Your task to perform on an android device: change the clock display to analog Image 0: 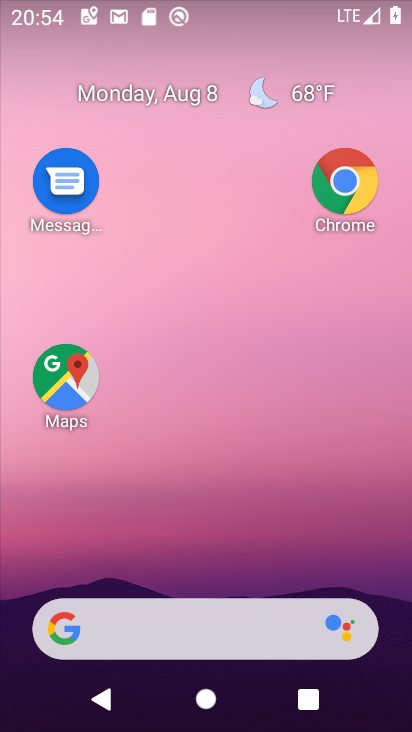
Step 0: drag from (209, 578) to (167, 17)
Your task to perform on an android device: change the clock display to analog Image 1: 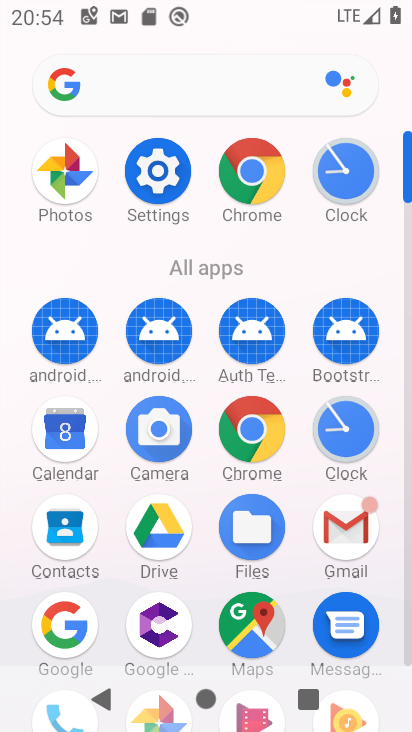
Step 1: click (364, 413)
Your task to perform on an android device: change the clock display to analog Image 2: 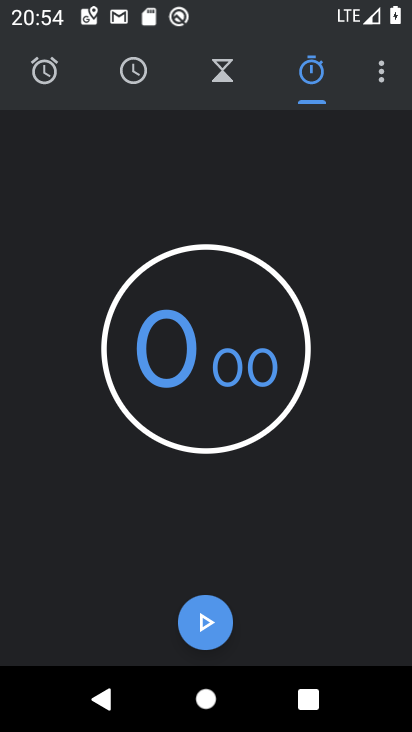
Step 2: click (383, 62)
Your task to perform on an android device: change the clock display to analog Image 3: 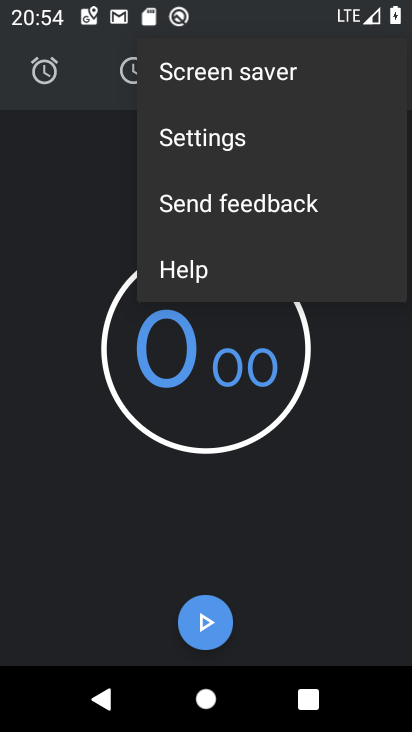
Step 3: click (228, 130)
Your task to perform on an android device: change the clock display to analog Image 4: 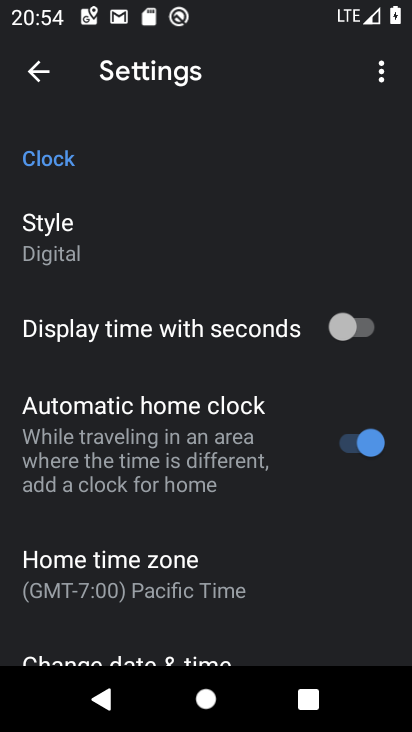
Step 4: click (49, 233)
Your task to perform on an android device: change the clock display to analog Image 5: 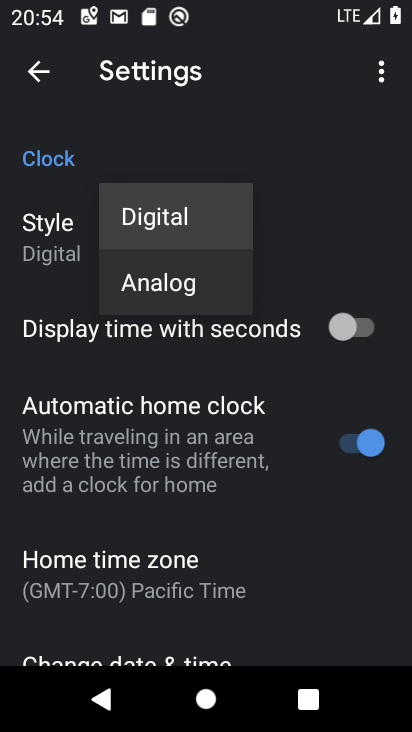
Step 5: click (138, 284)
Your task to perform on an android device: change the clock display to analog Image 6: 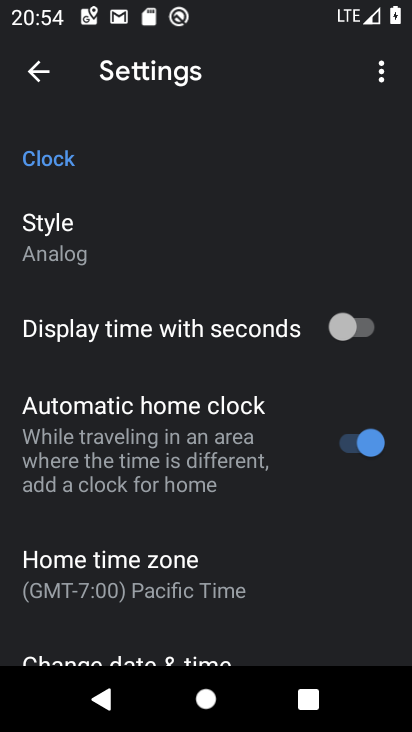
Step 6: task complete